Your task to perform on an android device: open app "Spotify" (install if not already installed) and go to login screen Image 0: 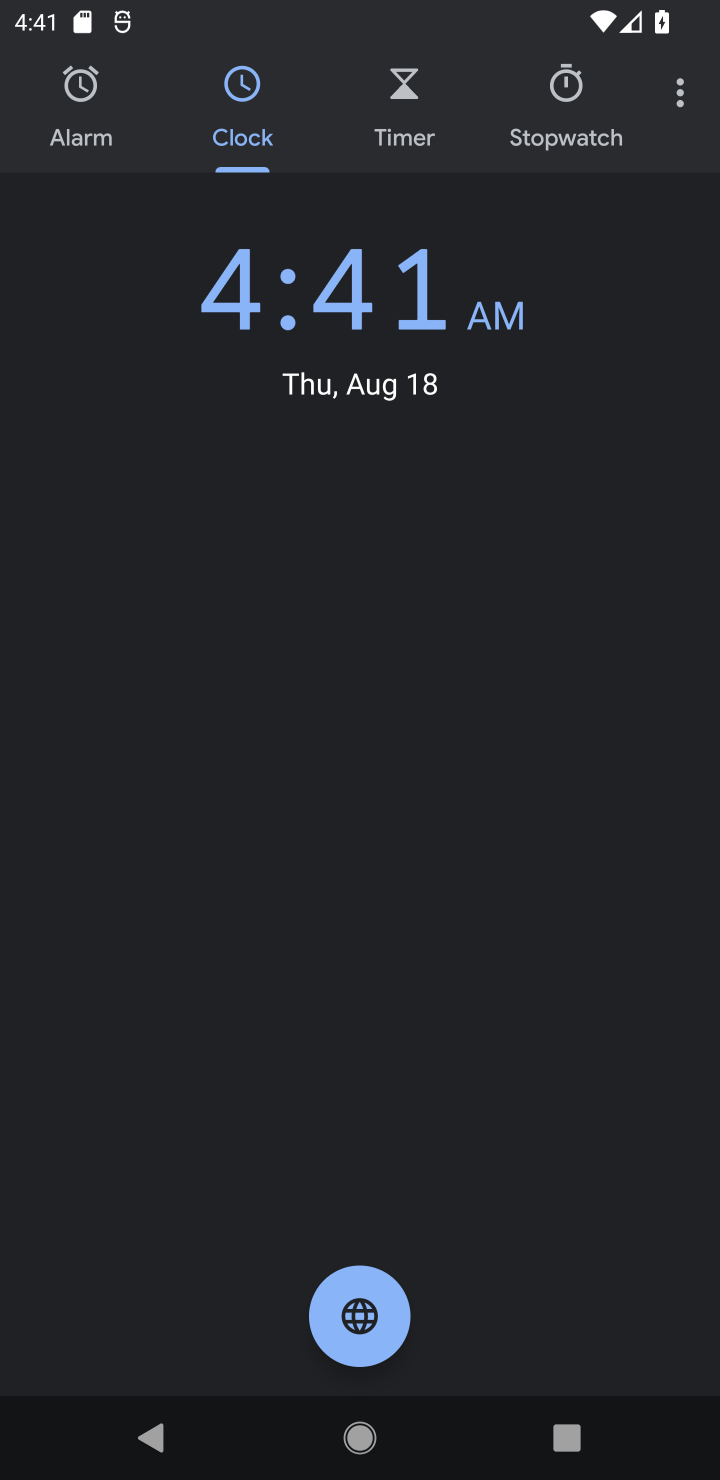
Step 0: press home button
Your task to perform on an android device: open app "Spotify" (install if not already installed) and go to login screen Image 1: 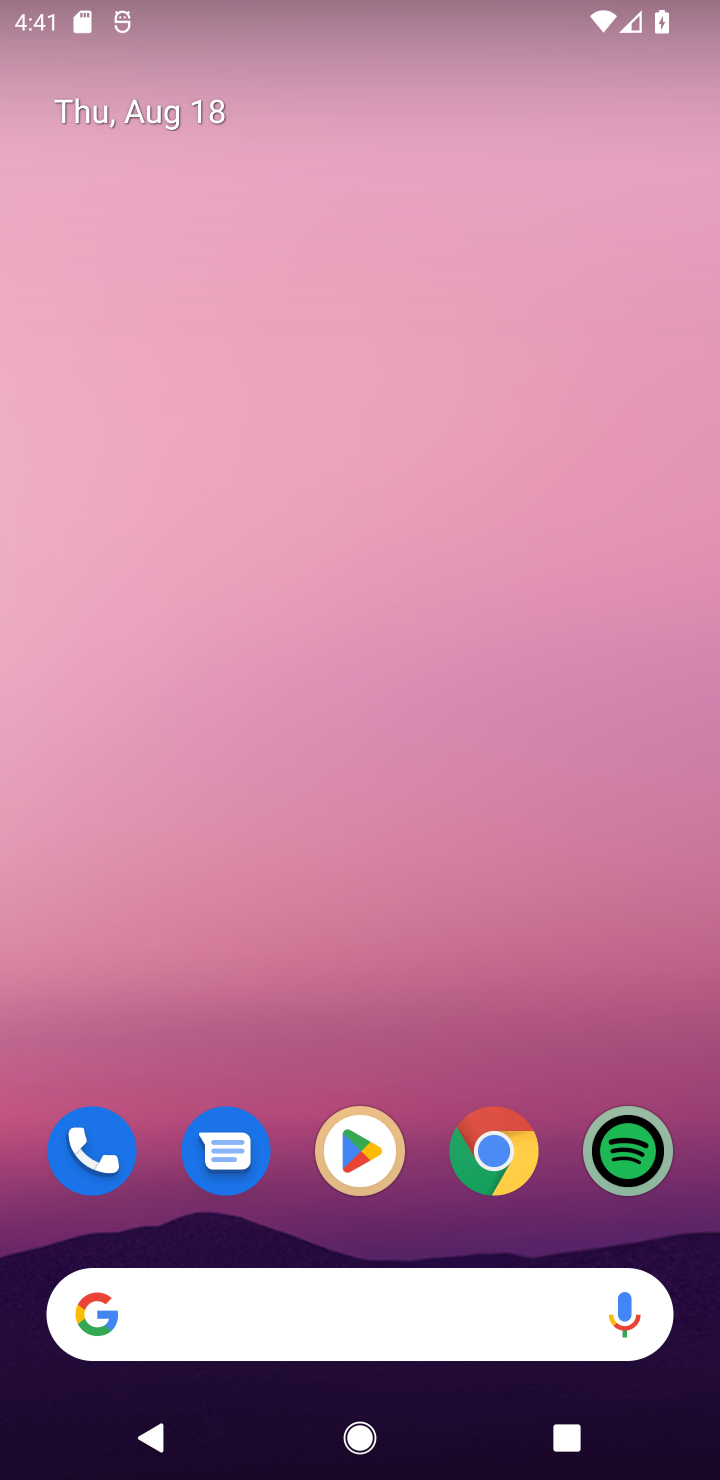
Step 1: click (609, 1131)
Your task to perform on an android device: open app "Spotify" (install if not already installed) and go to login screen Image 2: 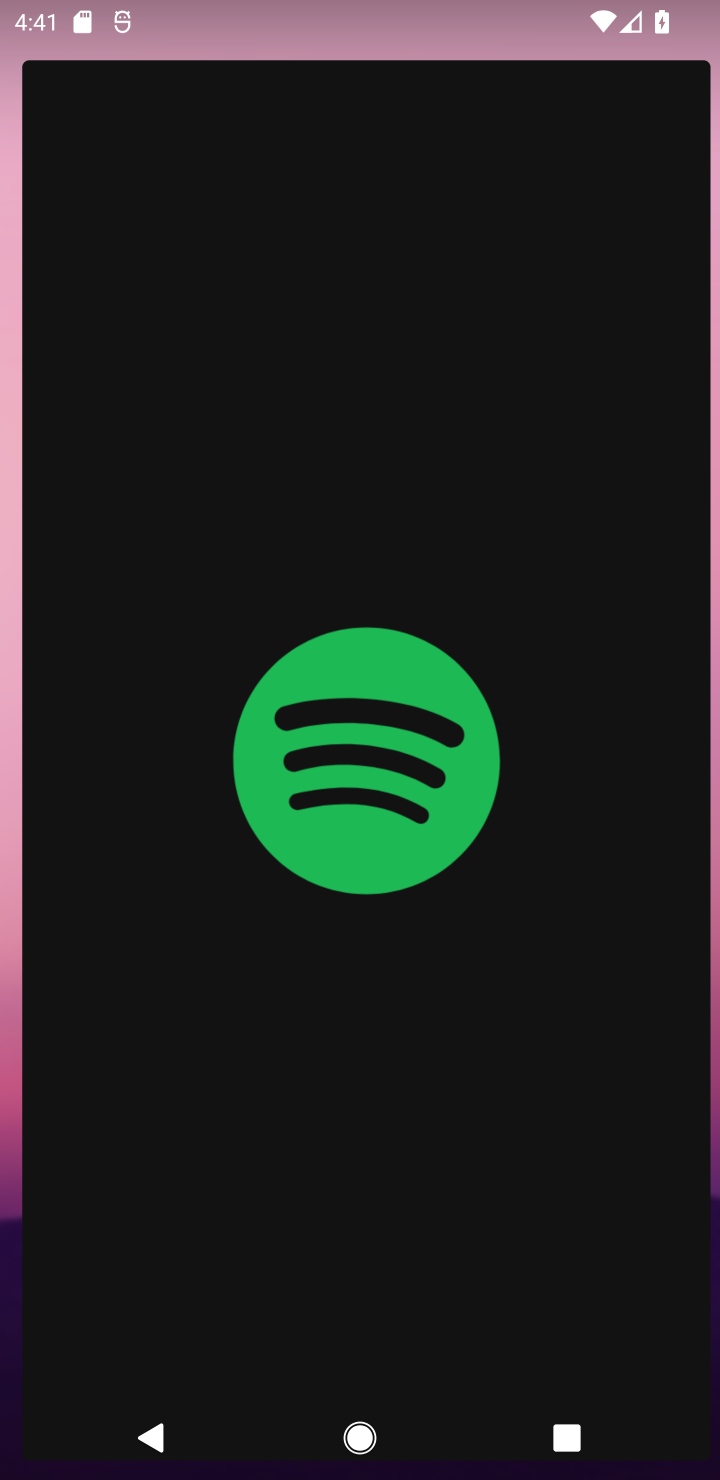
Step 2: task complete